Your task to perform on an android device: Go to Android settings Image 0: 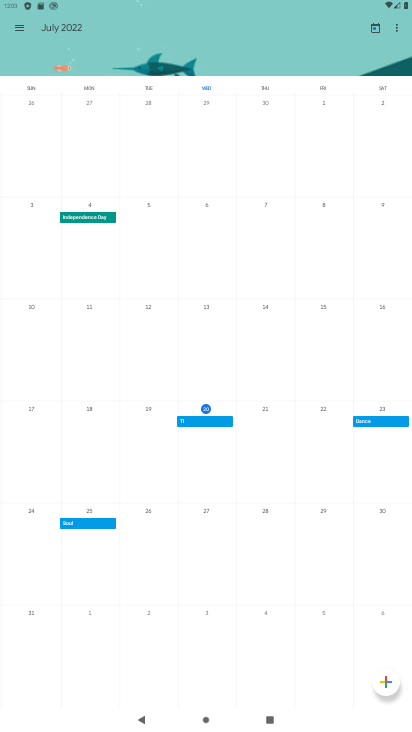
Step 0: press home button
Your task to perform on an android device: Go to Android settings Image 1: 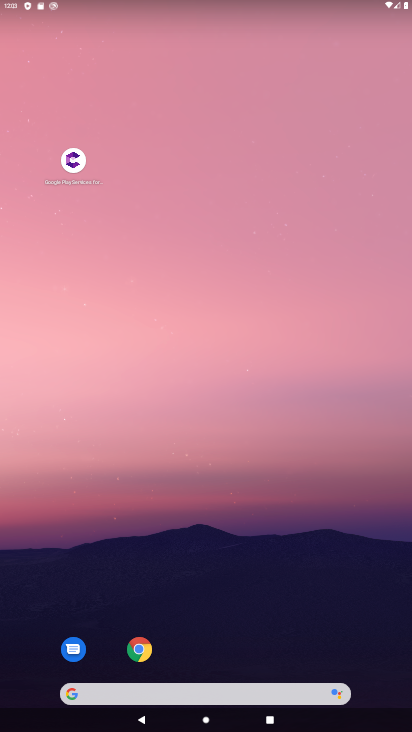
Step 1: drag from (335, 635) to (273, 180)
Your task to perform on an android device: Go to Android settings Image 2: 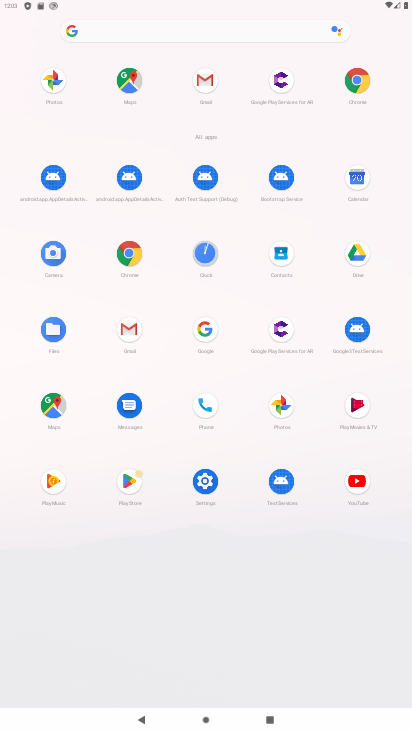
Step 2: click (207, 481)
Your task to perform on an android device: Go to Android settings Image 3: 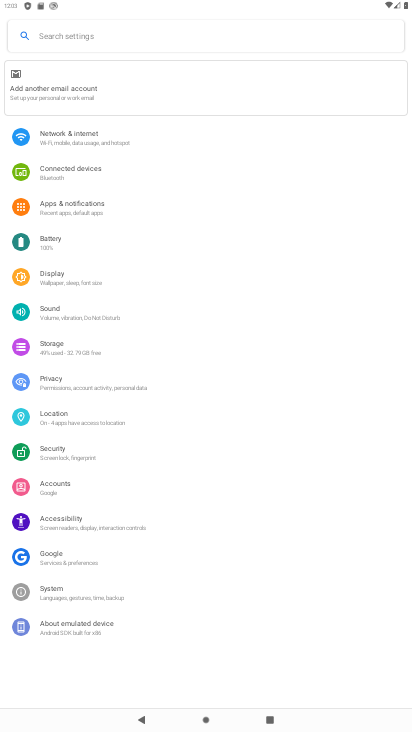
Step 3: task complete